Your task to perform on an android device: add a contact in the contacts app Image 0: 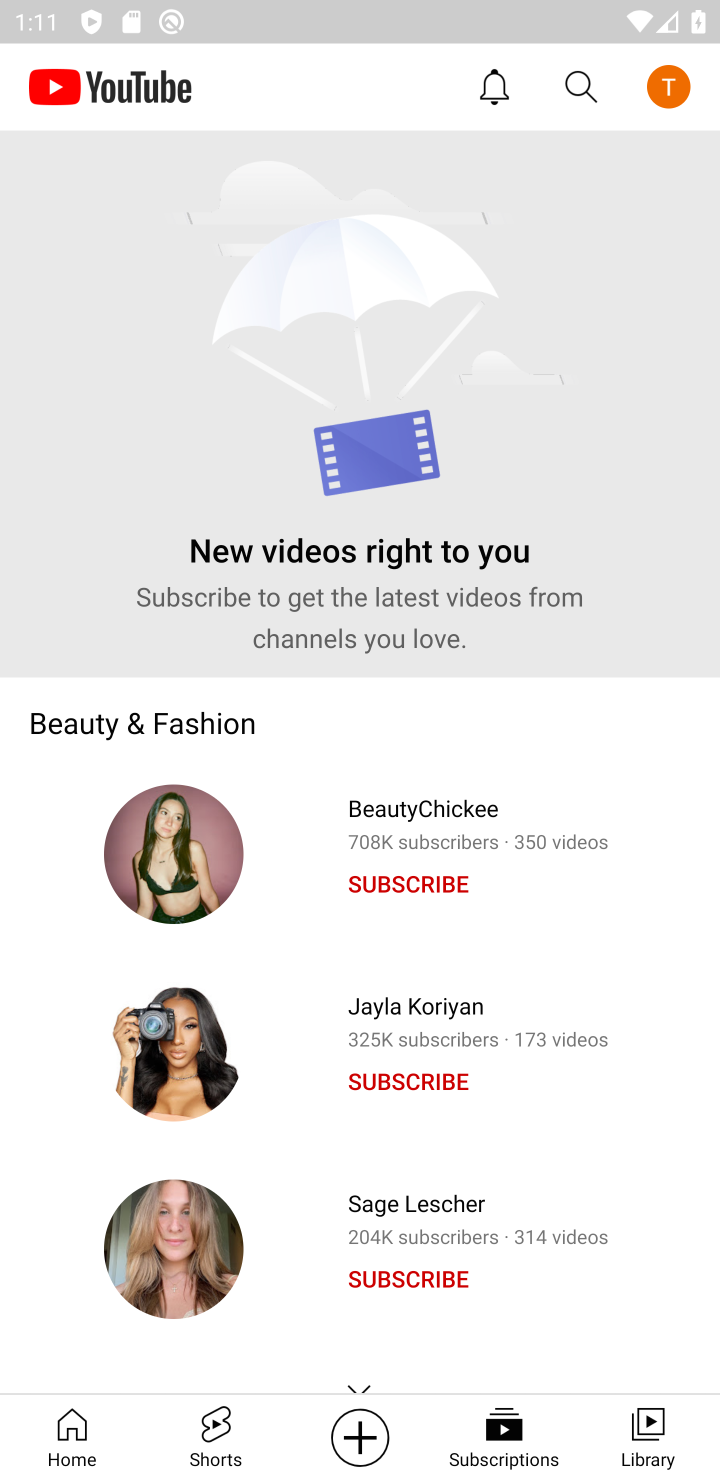
Step 0: click (244, 1273)
Your task to perform on an android device: add a contact in the contacts app Image 1: 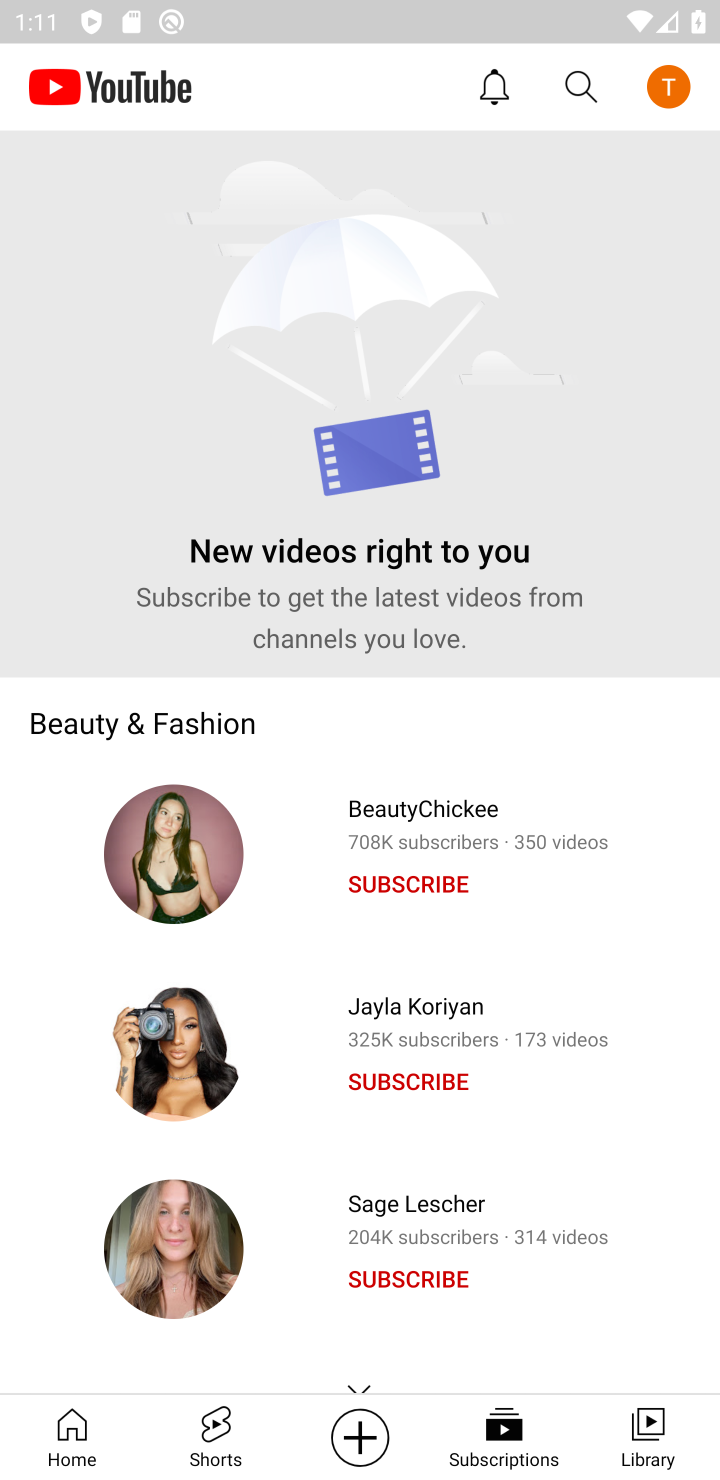
Step 1: press home button
Your task to perform on an android device: add a contact in the contacts app Image 2: 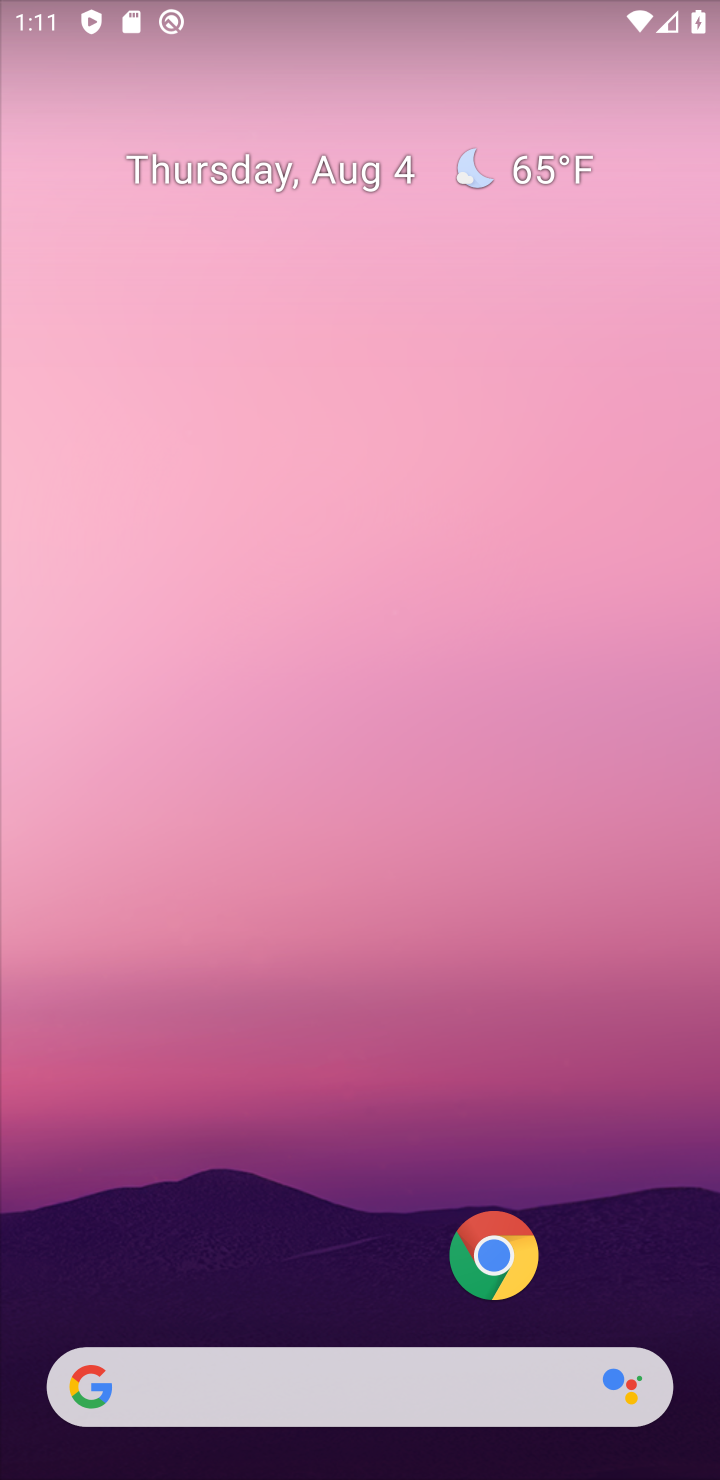
Step 2: drag from (277, 1465) to (93, 120)
Your task to perform on an android device: add a contact in the contacts app Image 3: 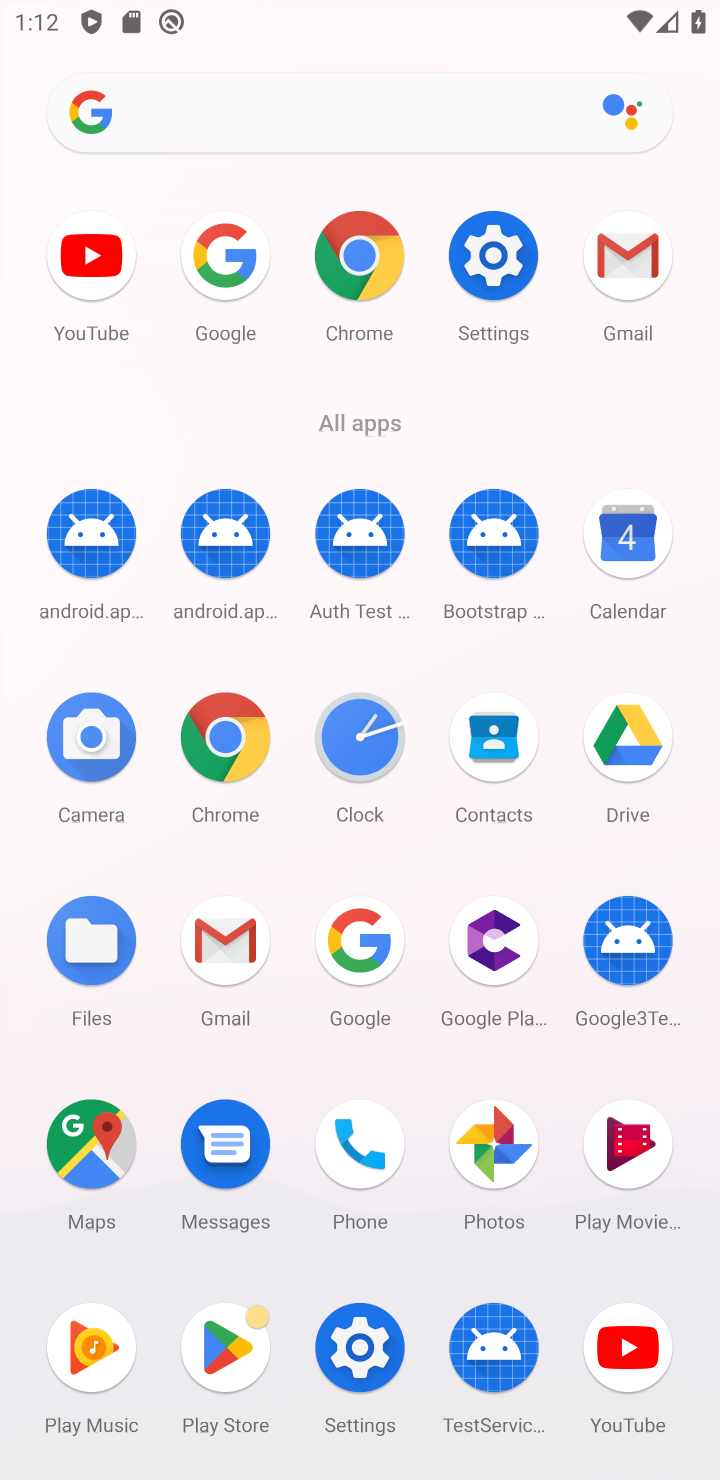
Step 3: click (363, 1129)
Your task to perform on an android device: add a contact in the contacts app Image 4: 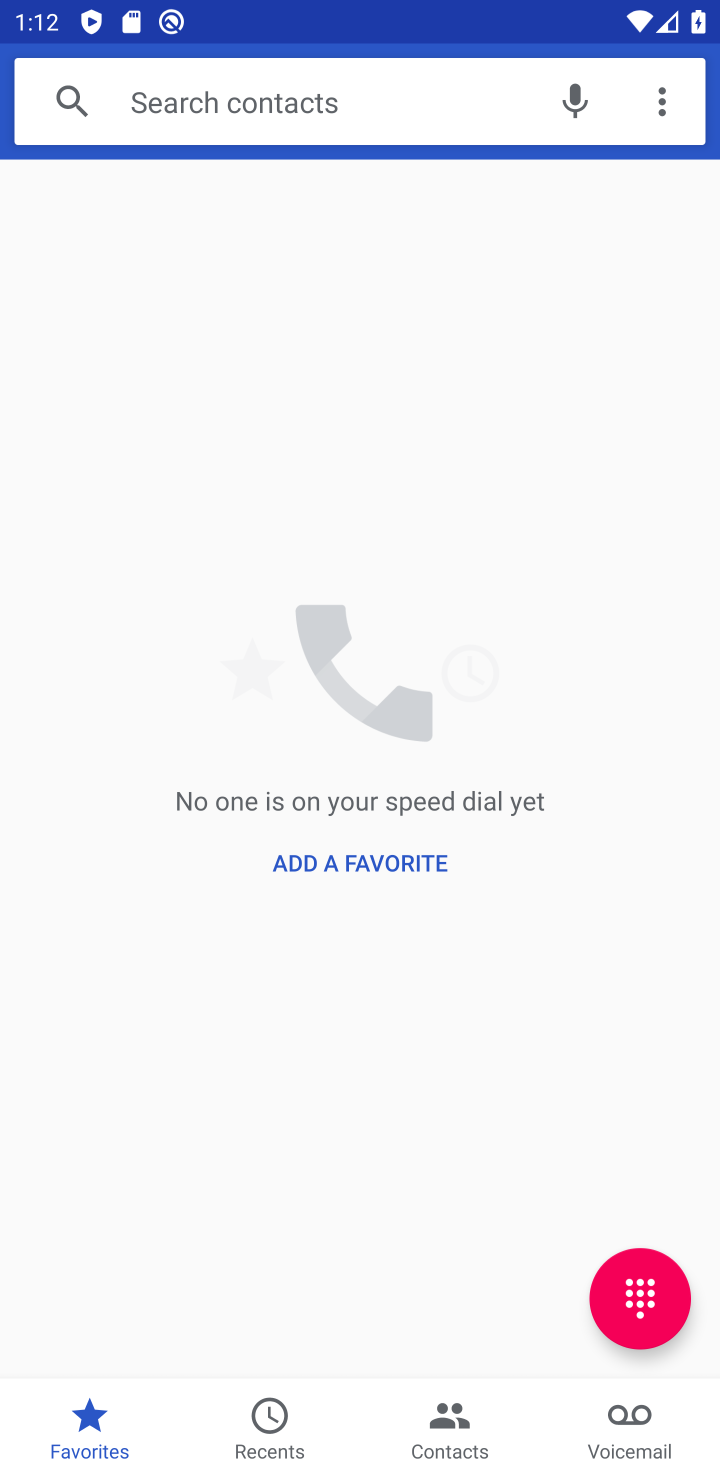
Step 4: click (448, 1428)
Your task to perform on an android device: add a contact in the contacts app Image 5: 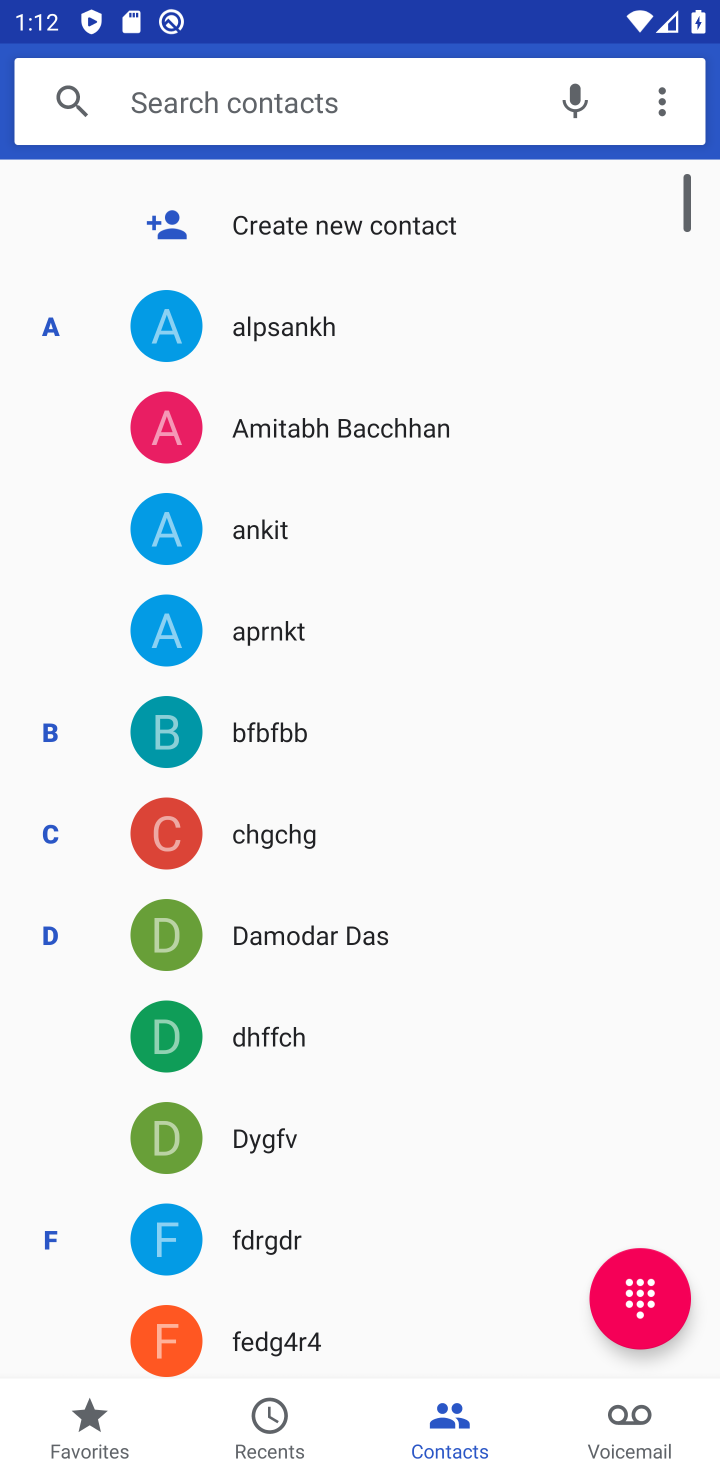
Step 5: click (200, 227)
Your task to perform on an android device: add a contact in the contacts app Image 6: 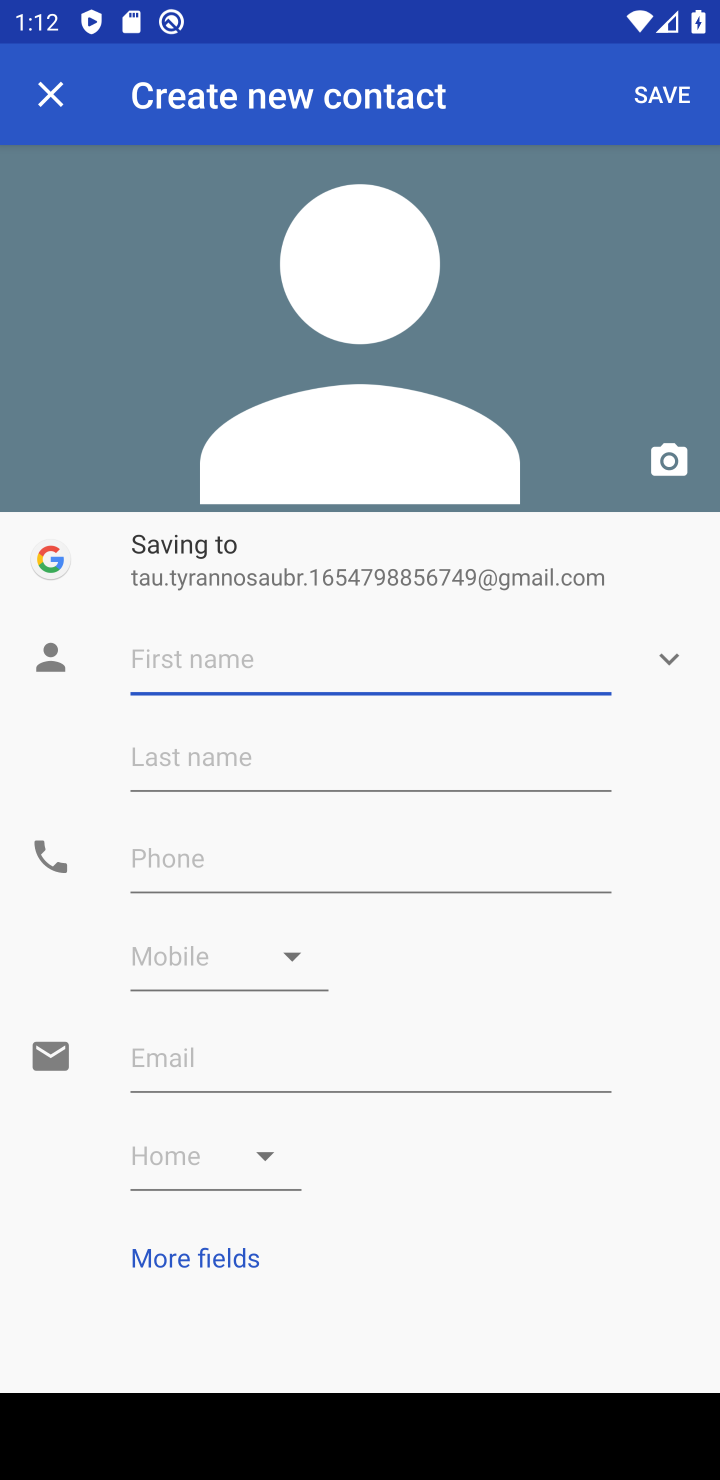
Step 6: type "tytyu"
Your task to perform on an android device: add a contact in the contacts app Image 7: 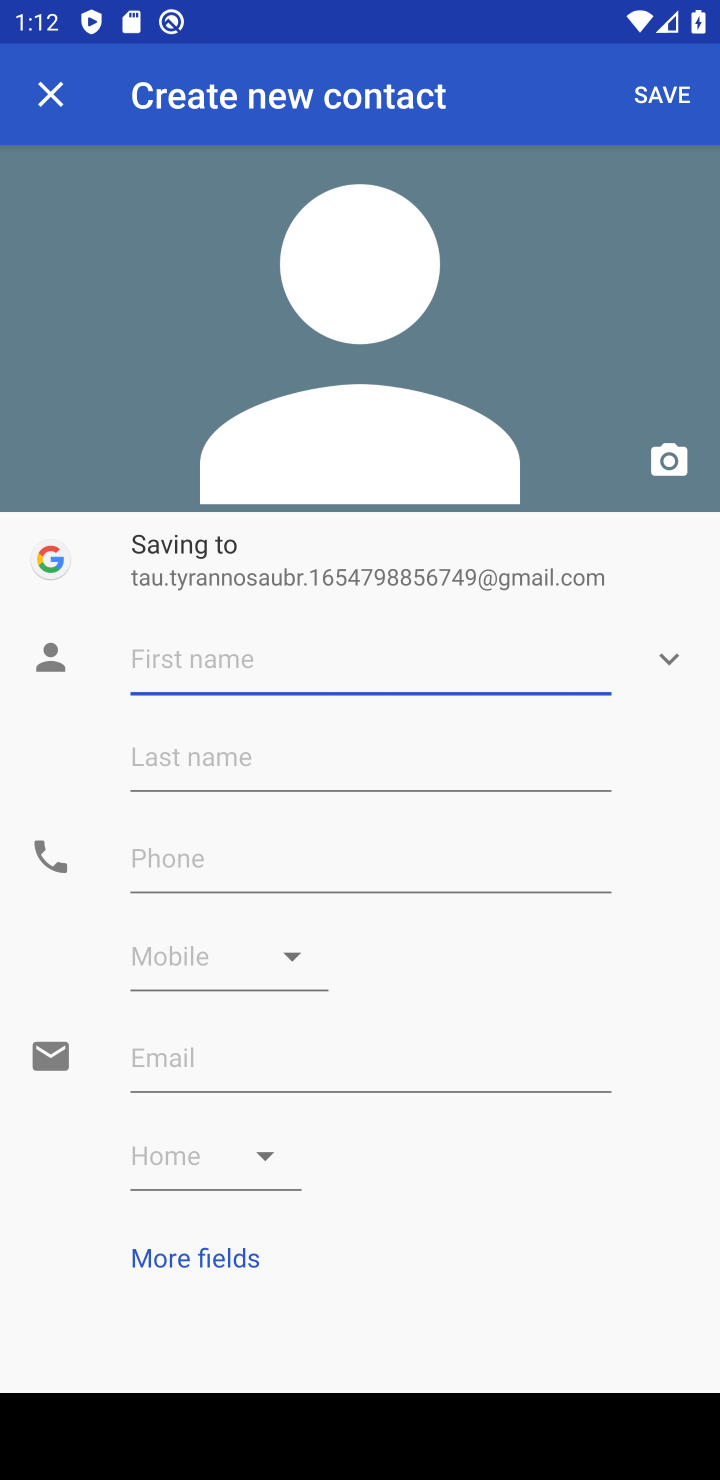
Step 7: click (369, 870)
Your task to perform on an android device: add a contact in the contacts app Image 8: 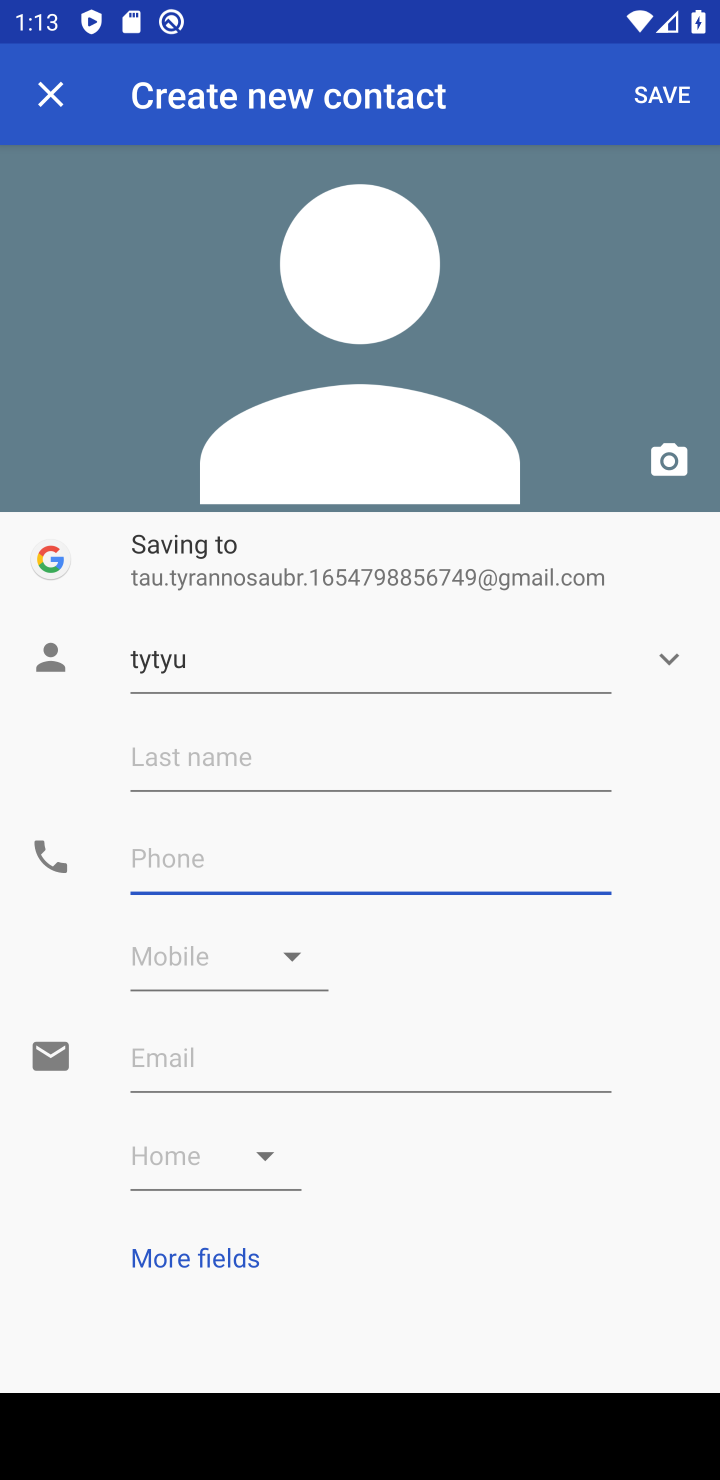
Step 8: type "56787656"
Your task to perform on an android device: add a contact in the contacts app Image 9: 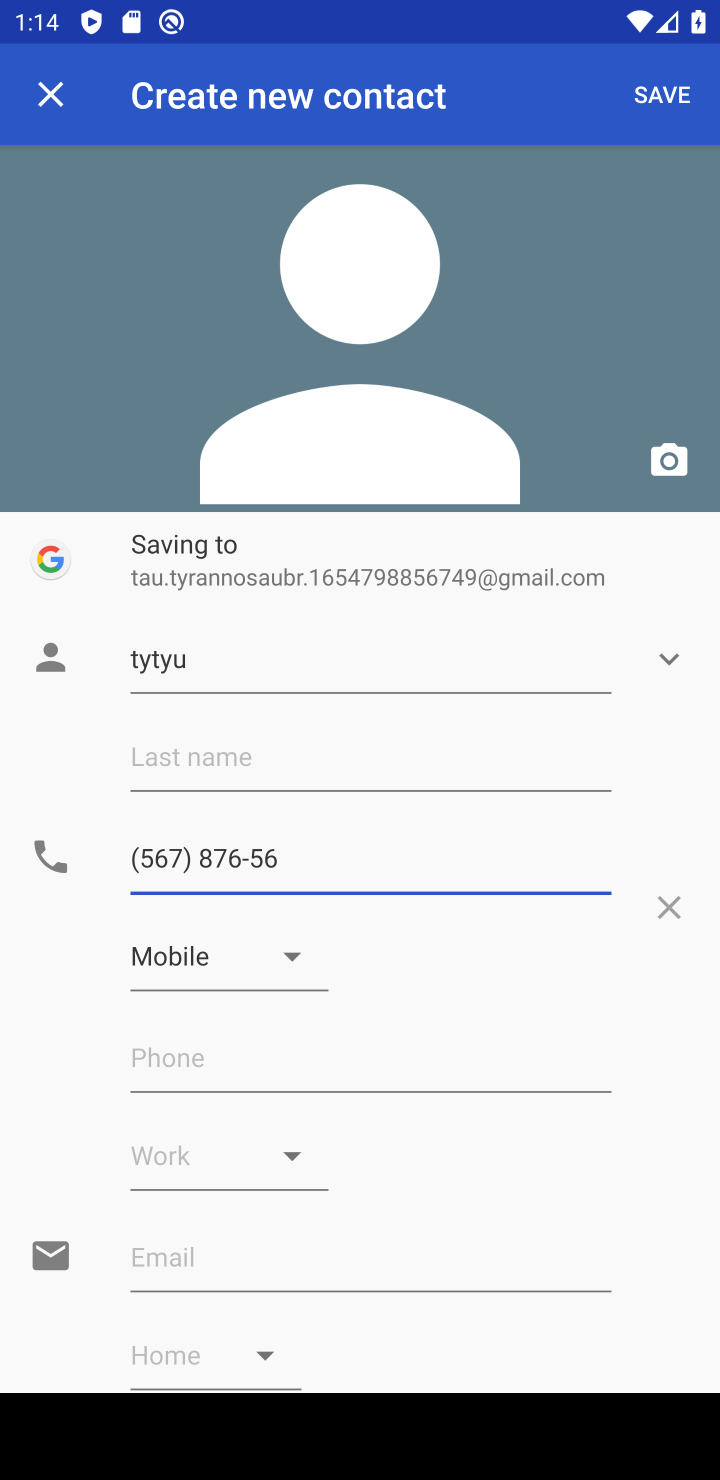
Step 9: click (677, 80)
Your task to perform on an android device: add a contact in the contacts app Image 10: 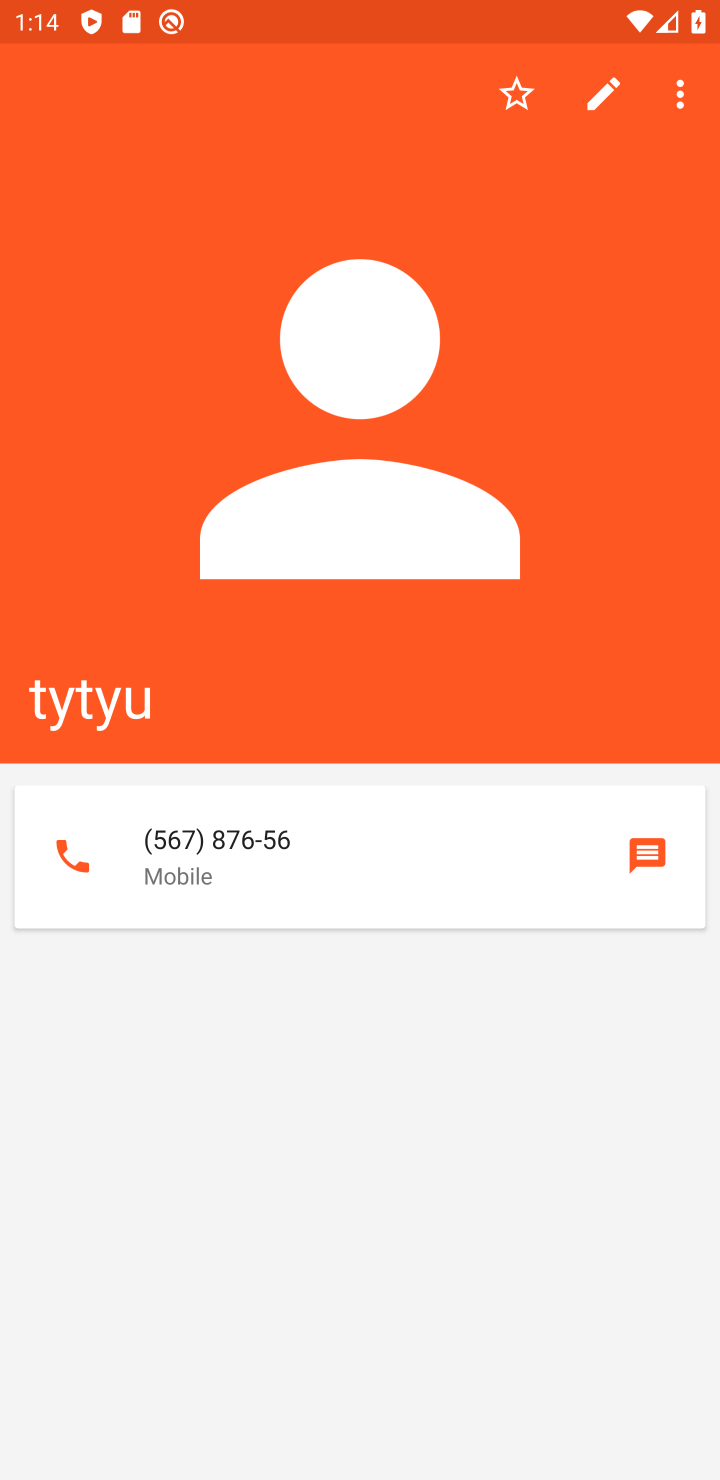
Step 10: task complete